Your task to perform on an android device: empty trash in google photos Image 0: 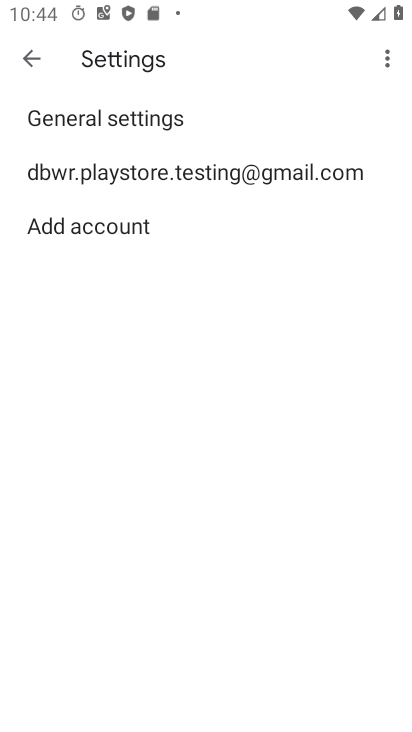
Step 0: press back button
Your task to perform on an android device: empty trash in google photos Image 1: 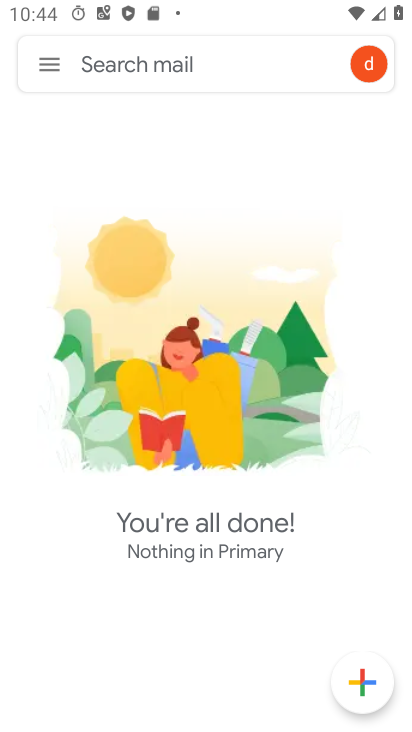
Step 1: click (45, 57)
Your task to perform on an android device: empty trash in google photos Image 2: 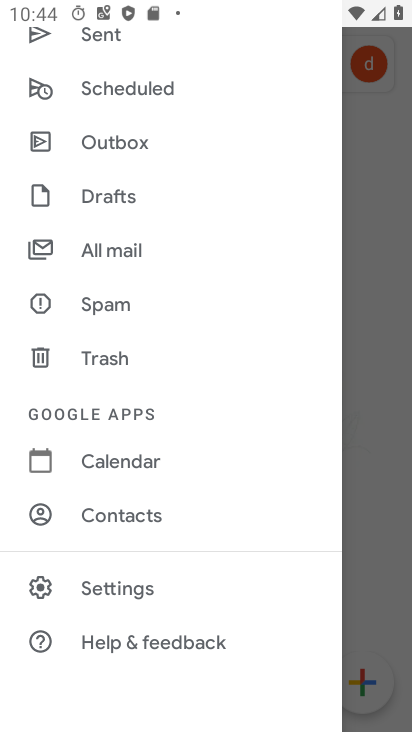
Step 2: click (139, 363)
Your task to perform on an android device: empty trash in google photos Image 3: 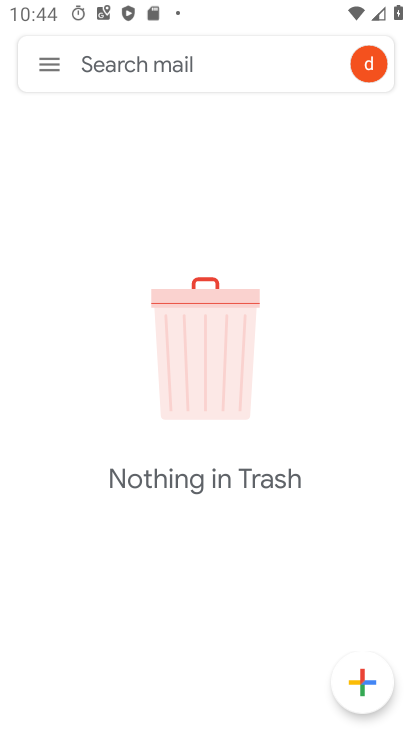
Step 3: task complete